Your task to perform on an android device: What's the weather today? Image 0: 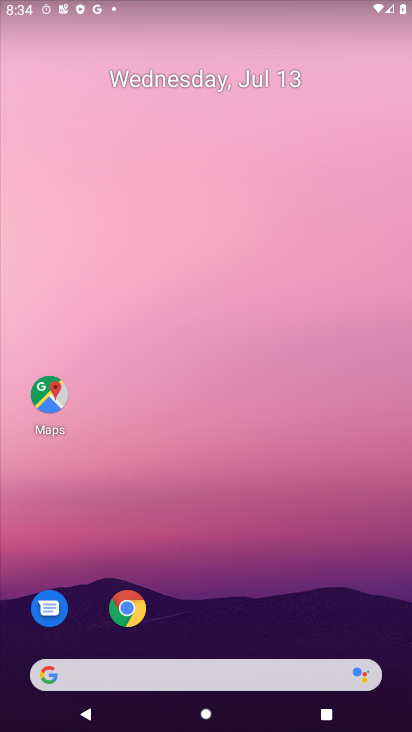
Step 0: drag from (242, 311) to (201, 9)
Your task to perform on an android device: What's the weather today? Image 1: 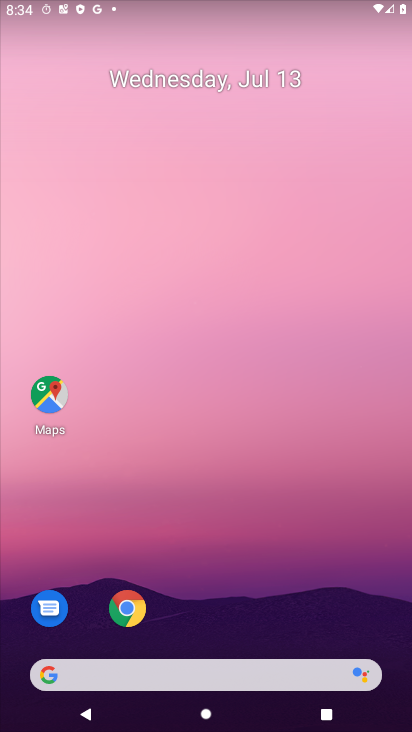
Step 1: drag from (284, 595) to (221, 56)
Your task to perform on an android device: What's the weather today? Image 2: 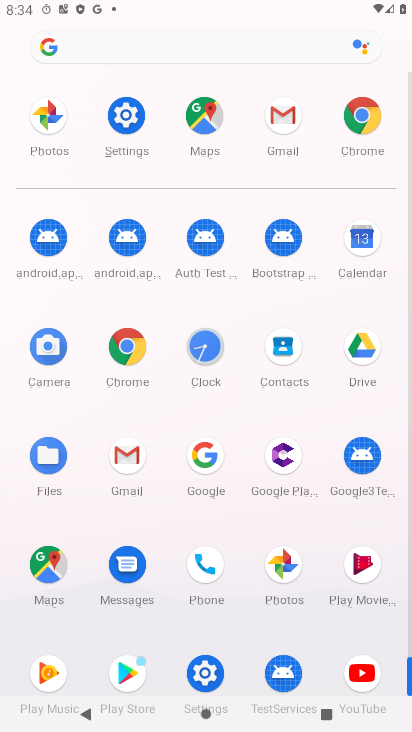
Step 2: click (358, 124)
Your task to perform on an android device: What's the weather today? Image 3: 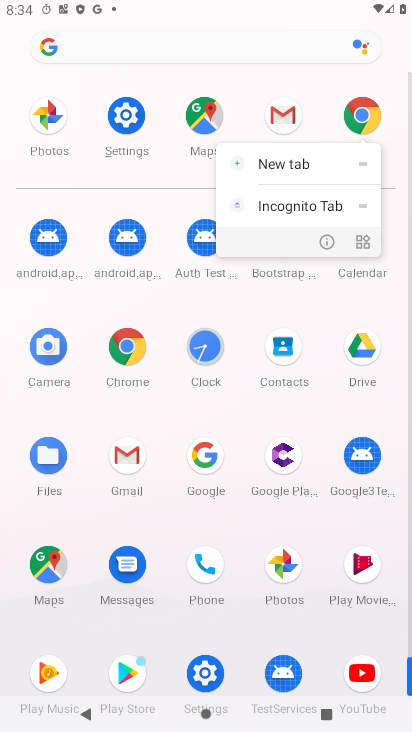
Step 3: click (351, 122)
Your task to perform on an android device: What's the weather today? Image 4: 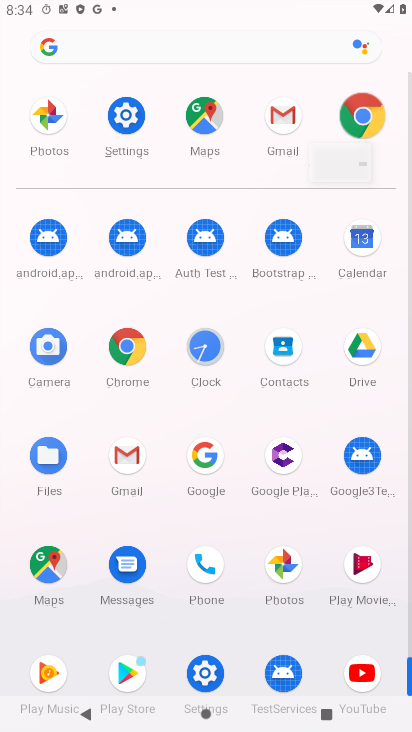
Step 4: click (361, 116)
Your task to perform on an android device: What's the weather today? Image 5: 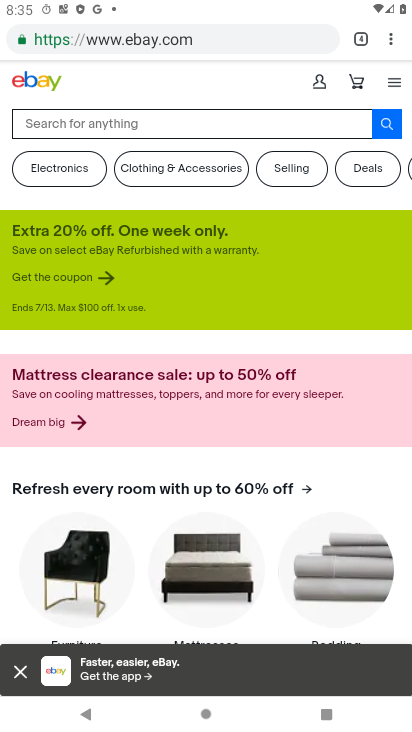
Step 5: click (391, 42)
Your task to perform on an android device: What's the weather today? Image 6: 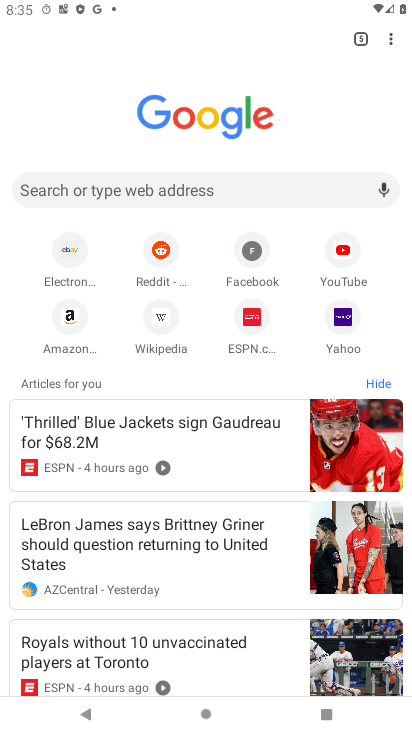
Step 6: click (41, 190)
Your task to perform on an android device: What's the weather today? Image 7: 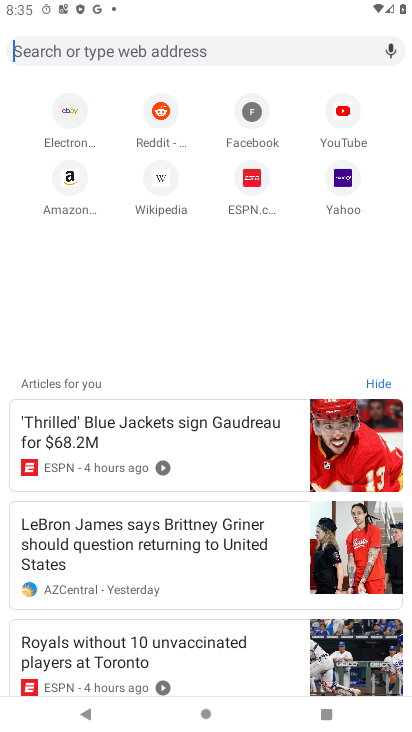
Step 7: click (54, 193)
Your task to perform on an android device: What's the weather today? Image 8: 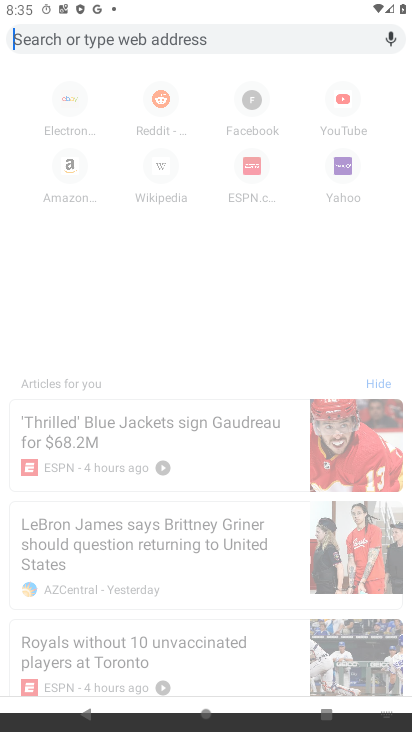
Step 8: click (59, 193)
Your task to perform on an android device: What's the weather today? Image 9: 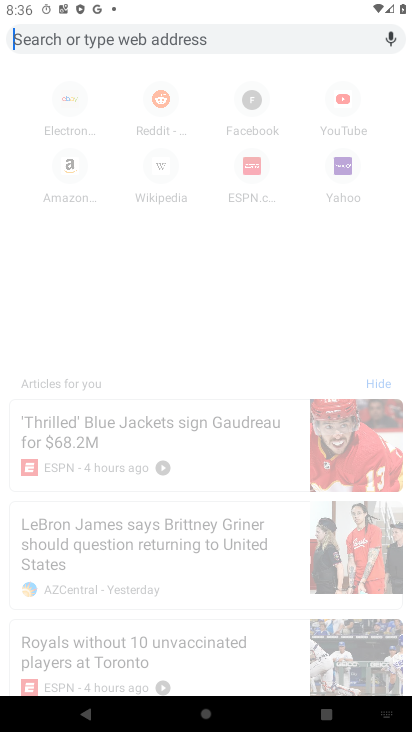
Step 9: type "what's the weather today"
Your task to perform on an android device: What's the weather today? Image 10: 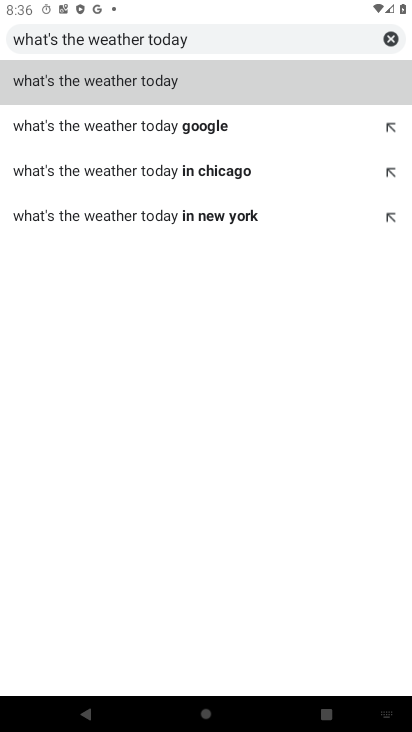
Step 10: click (171, 77)
Your task to perform on an android device: What's the weather today? Image 11: 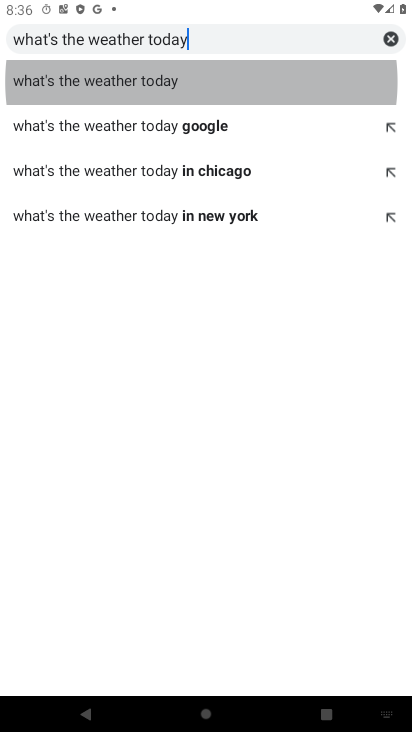
Step 11: click (159, 79)
Your task to perform on an android device: What's the weather today? Image 12: 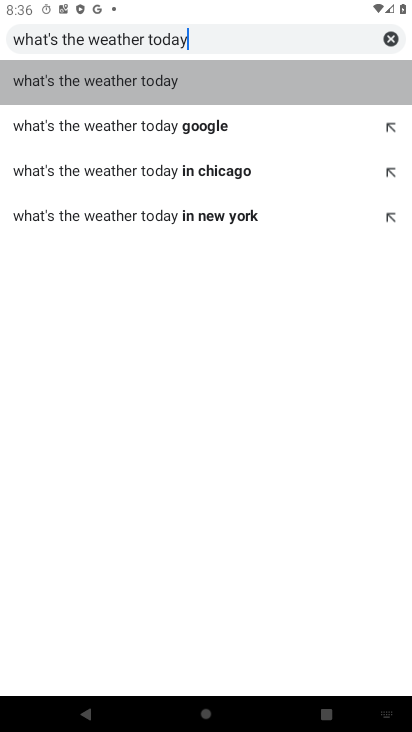
Step 12: click (159, 79)
Your task to perform on an android device: What's the weather today? Image 13: 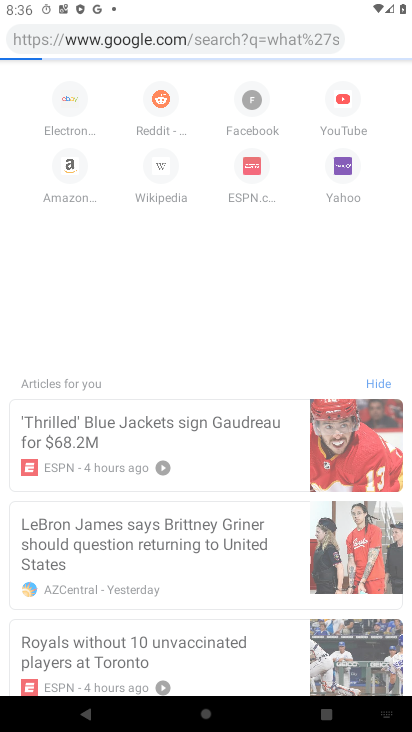
Step 13: click (160, 80)
Your task to perform on an android device: What's the weather today? Image 14: 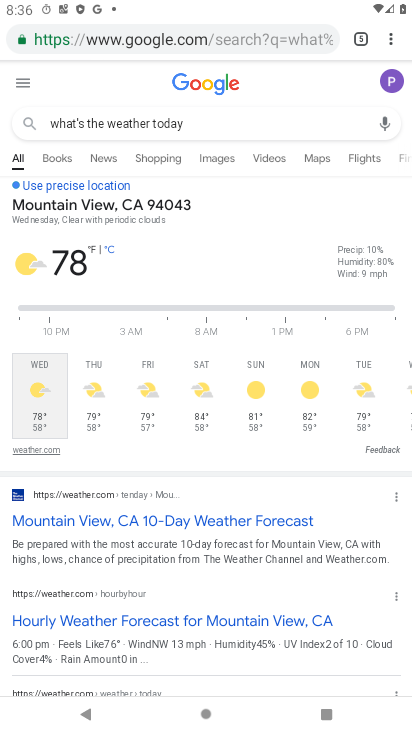
Step 14: task complete